Your task to perform on an android device: Go to location settings Image 0: 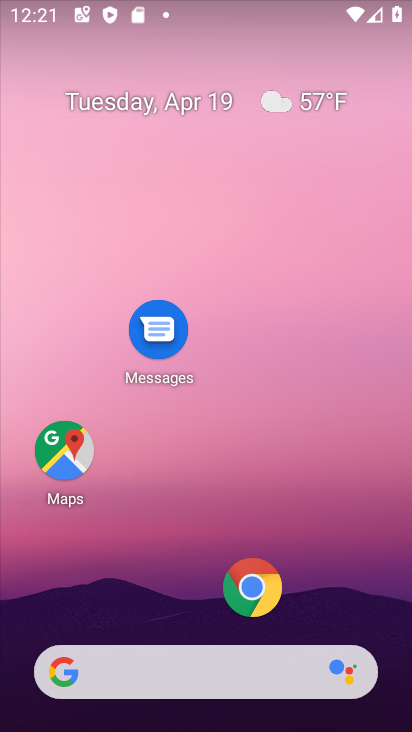
Step 0: drag from (158, 414) to (136, 90)
Your task to perform on an android device: Go to location settings Image 1: 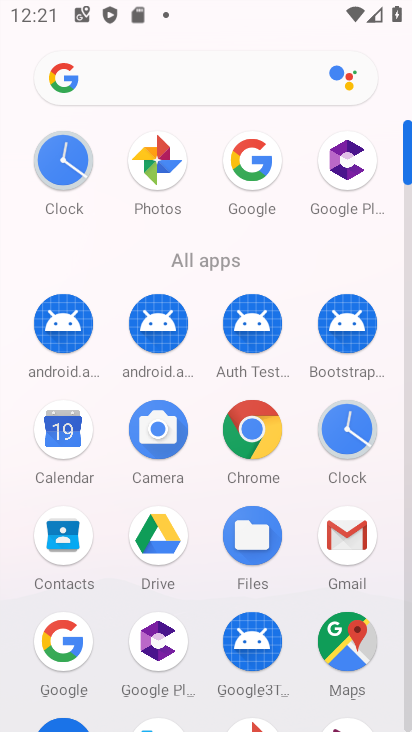
Step 1: drag from (208, 573) to (229, 168)
Your task to perform on an android device: Go to location settings Image 2: 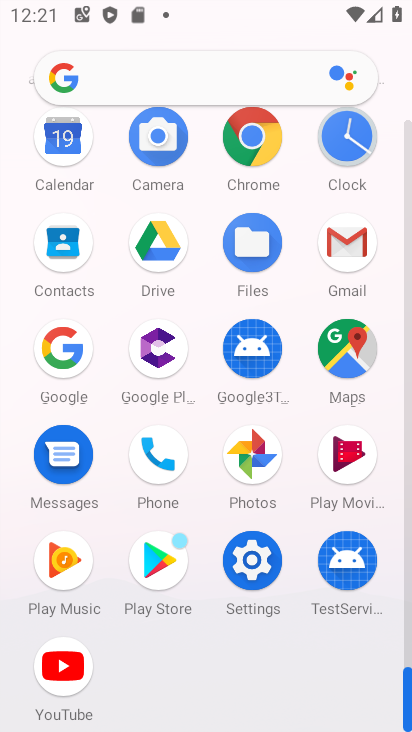
Step 2: click (258, 554)
Your task to perform on an android device: Go to location settings Image 3: 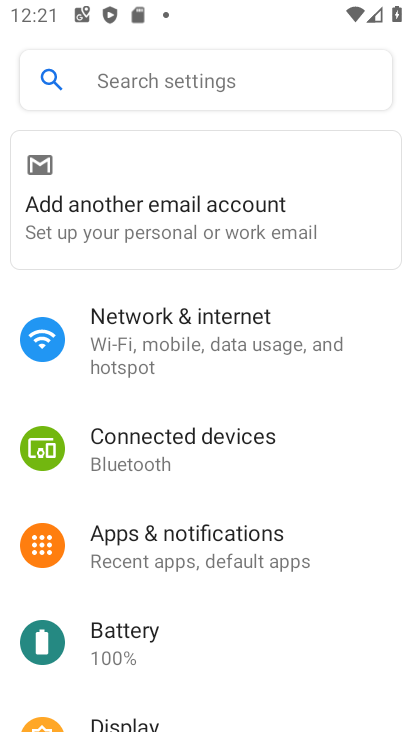
Step 3: drag from (291, 482) to (307, 117)
Your task to perform on an android device: Go to location settings Image 4: 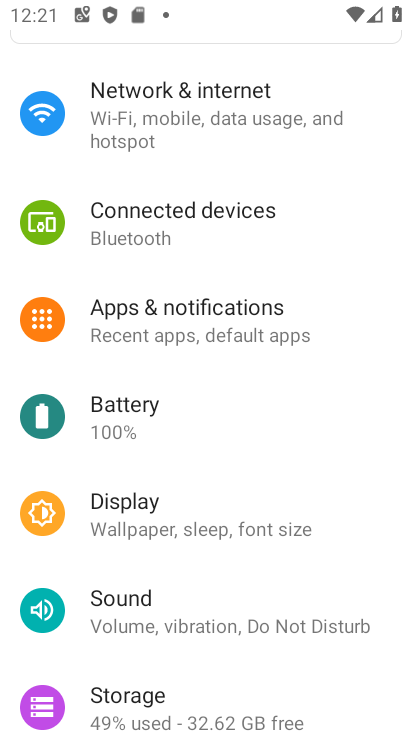
Step 4: drag from (198, 618) to (211, 254)
Your task to perform on an android device: Go to location settings Image 5: 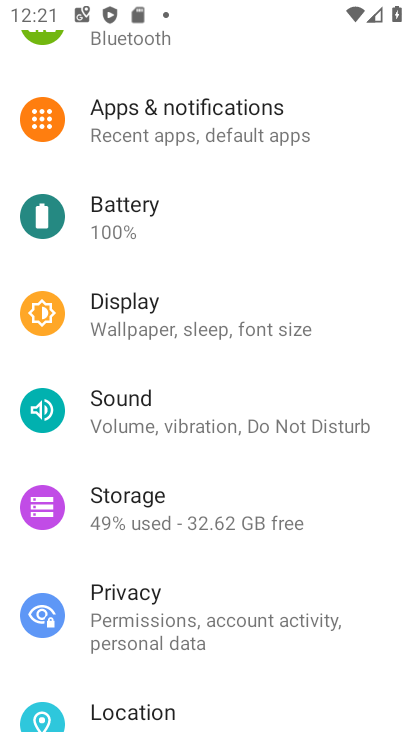
Step 5: click (129, 714)
Your task to perform on an android device: Go to location settings Image 6: 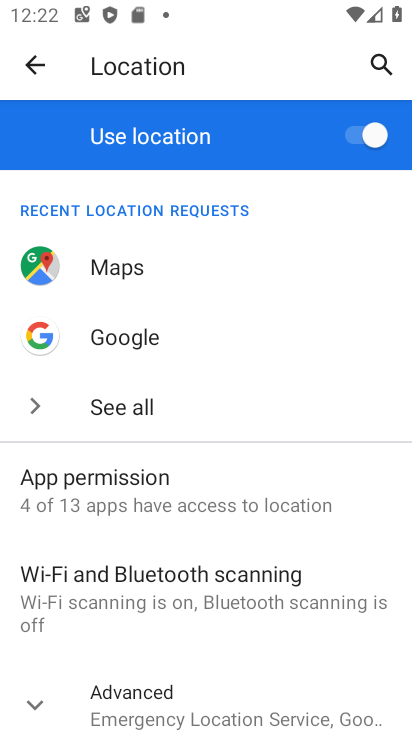
Step 6: task complete